Your task to perform on an android device: choose inbox layout in the gmail app Image 0: 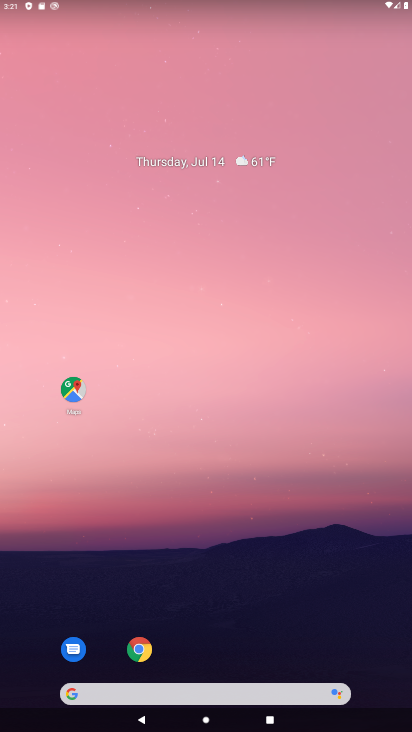
Step 0: drag from (193, 669) to (205, 173)
Your task to perform on an android device: choose inbox layout in the gmail app Image 1: 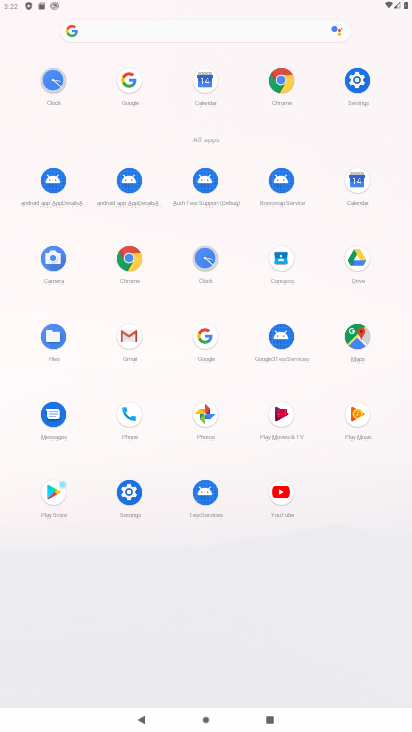
Step 1: click (131, 340)
Your task to perform on an android device: choose inbox layout in the gmail app Image 2: 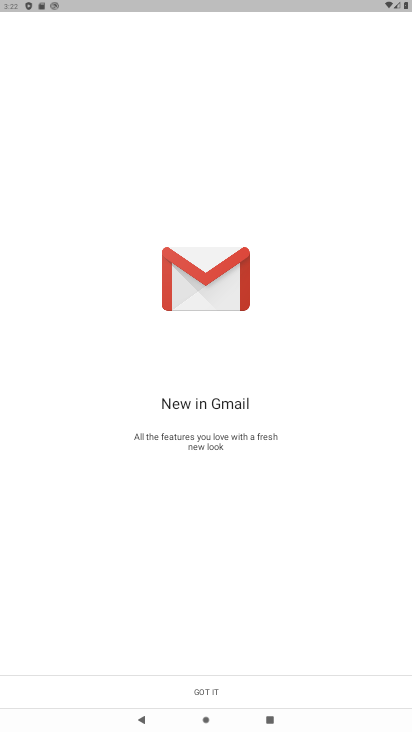
Step 2: click (198, 686)
Your task to perform on an android device: choose inbox layout in the gmail app Image 3: 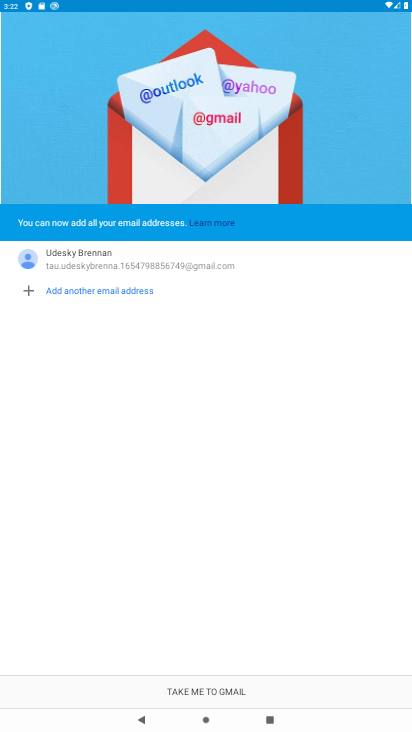
Step 3: click (149, 686)
Your task to perform on an android device: choose inbox layout in the gmail app Image 4: 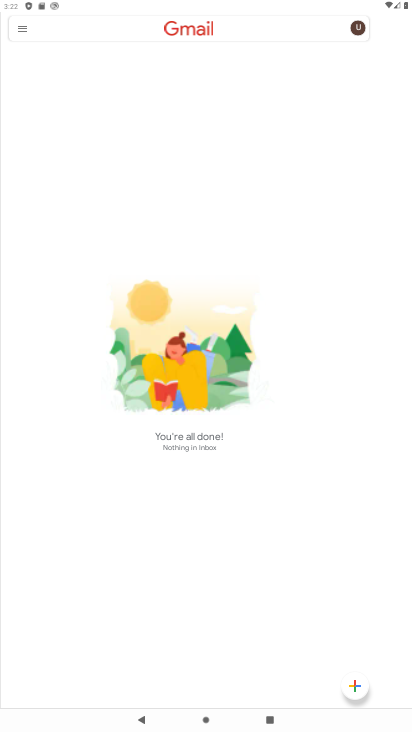
Step 4: click (23, 25)
Your task to perform on an android device: choose inbox layout in the gmail app Image 5: 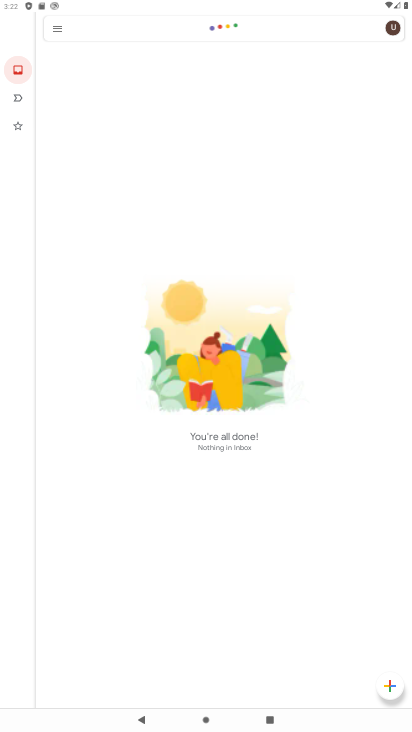
Step 5: click (56, 24)
Your task to perform on an android device: choose inbox layout in the gmail app Image 6: 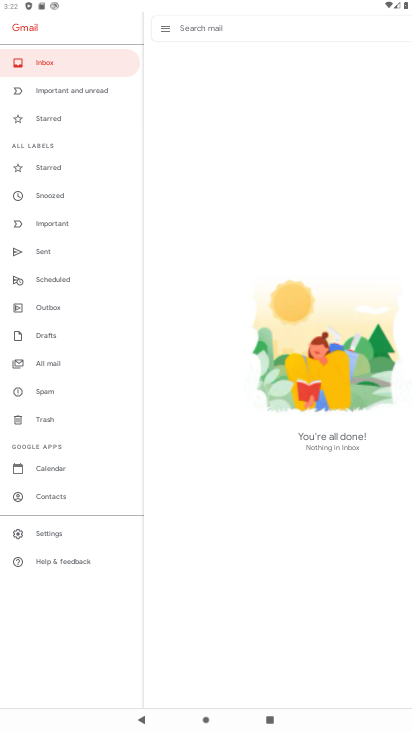
Step 6: click (53, 56)
Your task to perform on an android device: choose inbox layout in the gmail app Image 7: 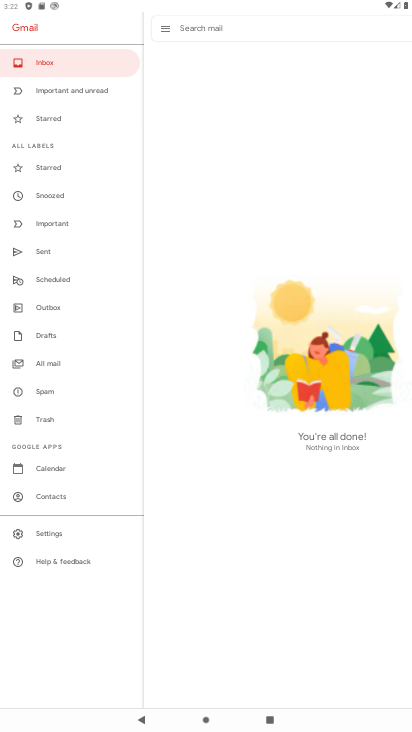
Step 7: task complete